Your task to perform on an android device: turn on sleep mode Image 0: 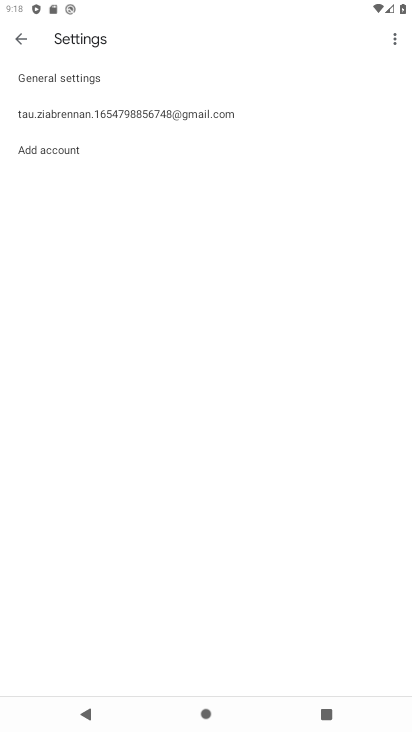
Step 0: press home button
Your task to perform on an android device: turn on sleep mode Image 1: 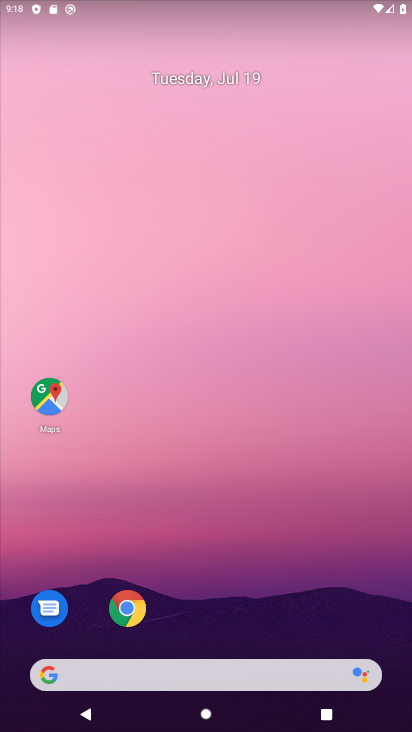
Step 1: drag from (229, 569) to (116, 84)
Your task to perform on an android device: turn on sleep mode Image 2: 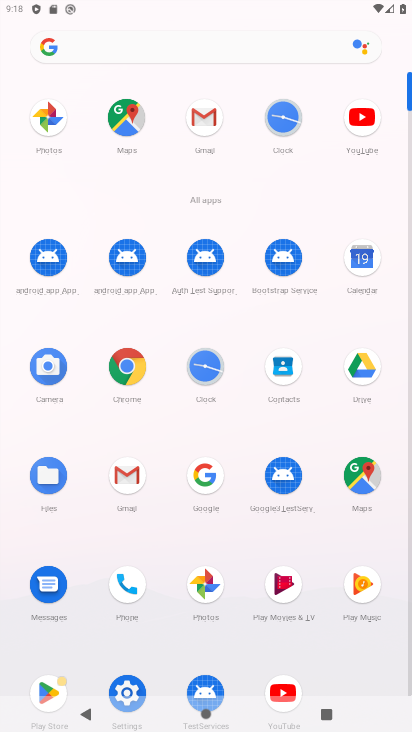
Step 2: click (129, 686)
Your task to perform on an android device: turn on sleep mode Image 3: 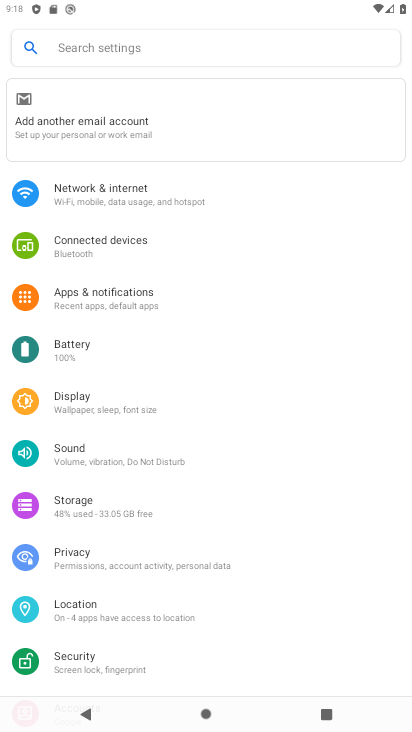
Step 3: click (79, 394)
Your task to perform on an android device: turn on sleep mode Image 4: 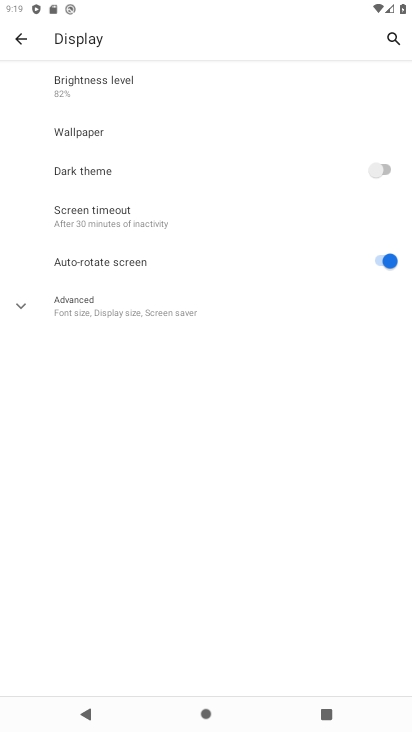
Step 4: task complete